Your task to perform on an android device: turn on location history Image 0: 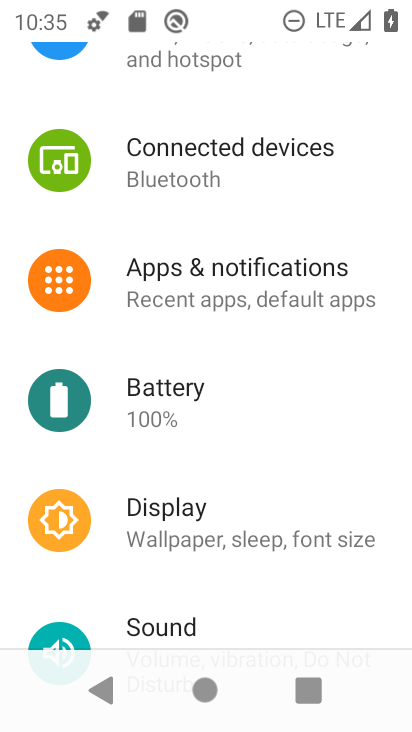
Step 0: press home button
Your task to perform on an android device: turn on location history Image 1: 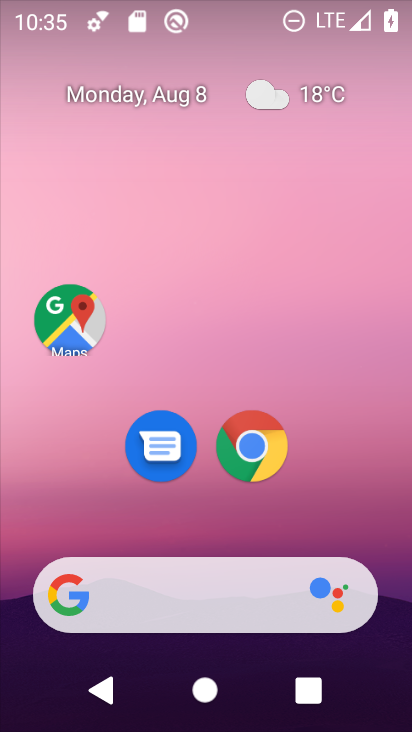
Step 1: click (71, 318)
Your task to perform on an android device: turn on location history Image 2: 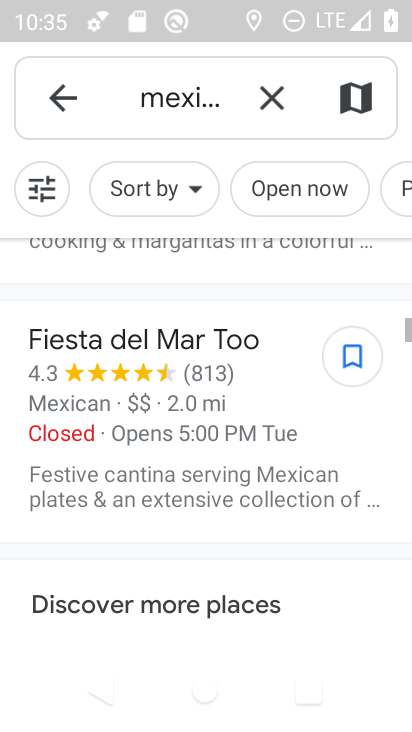
Step 2: click (264, 101)
Your task to perform on an android device: turn on location history Image 3: 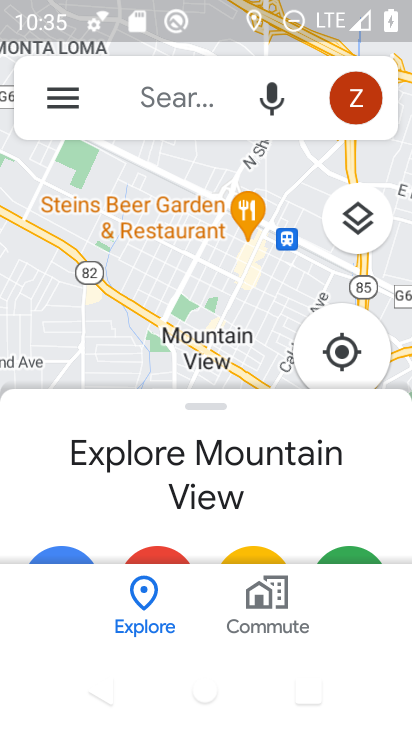
Step 3: click (56, 99)
Your task to perform on an android device: turn on location history Image 4: 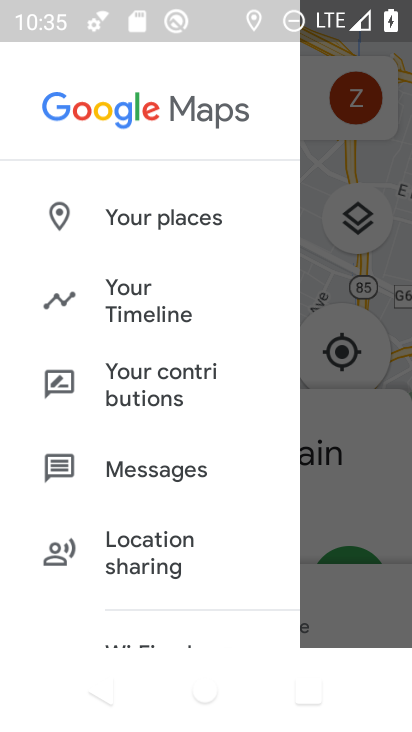
Step 4: drag from (208, 560) to (216, 287)
Your task to perform on an android device: turn on location history Image 5: 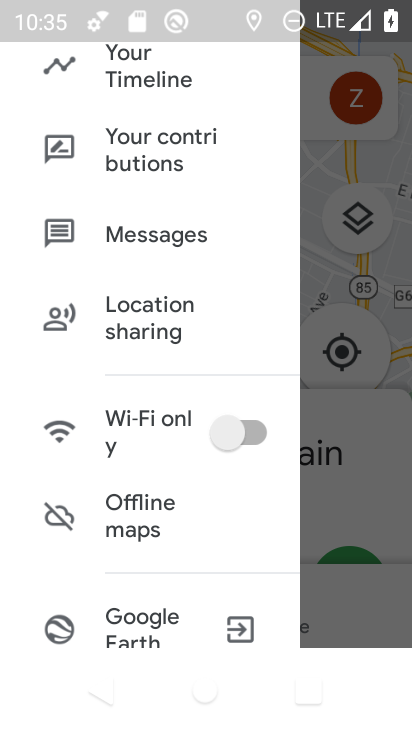
Step 5: drag from (215, 570) to (193, 213)
Your task to perform on an android device: turn on location history Image 6: 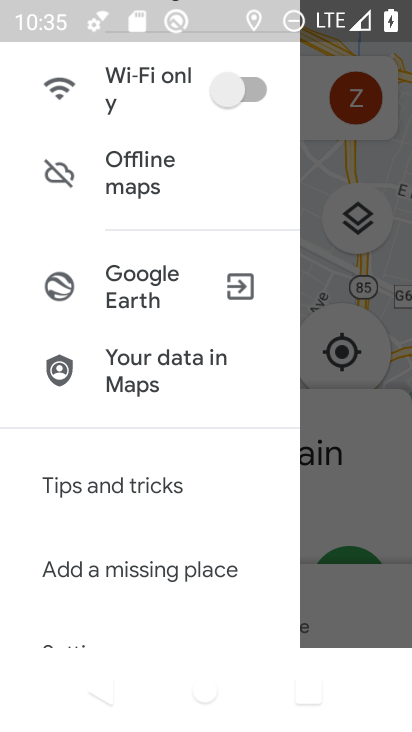
Step 6: drag from (215, 544) to (205, 205)
Your task to perform on an android device: turn on location history Image 7: 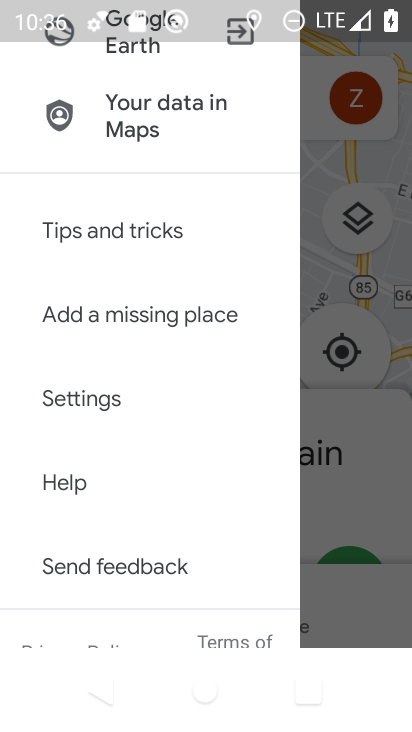
Step 7: click (85, 406)
Your task to perform on an android device: turn on location history Image 8: 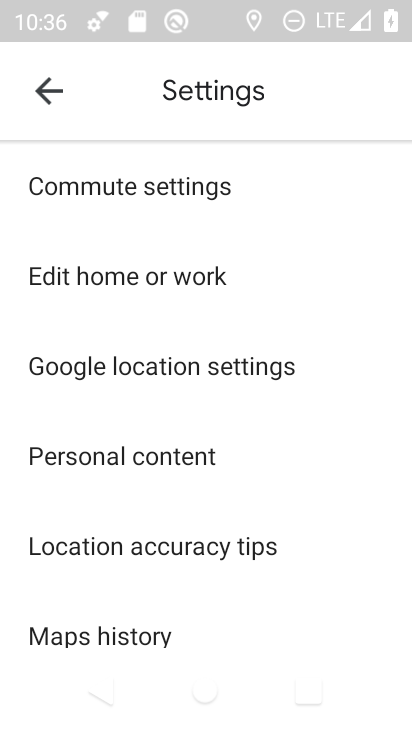
Step 8: click (117, 463)
Your task to perform on an android device: turn on location history Image 9: 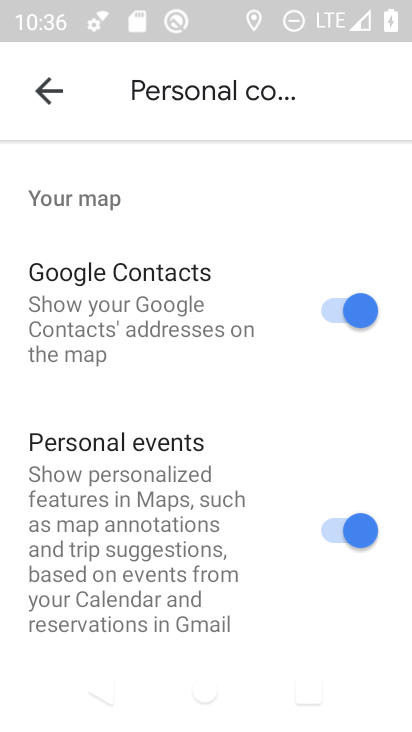
Step 9: drag from (238, 549) to (240, 176)
Your task to perform on an android device: turn on location history Image 10: 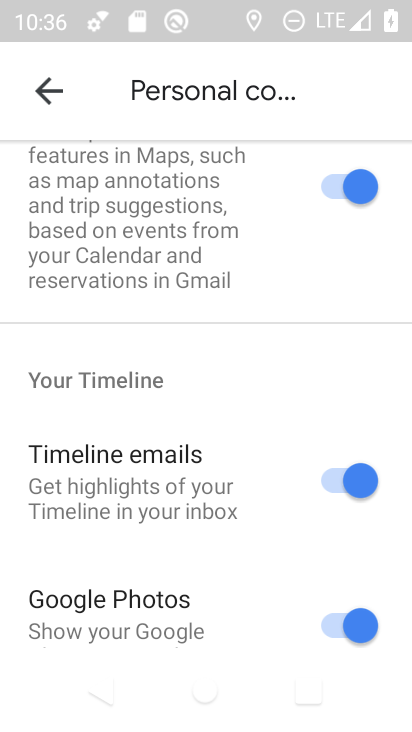
Step 10: drag from (240, 575) to (240, 219)
Your task to perform on an android device: turn on location history Image 11: 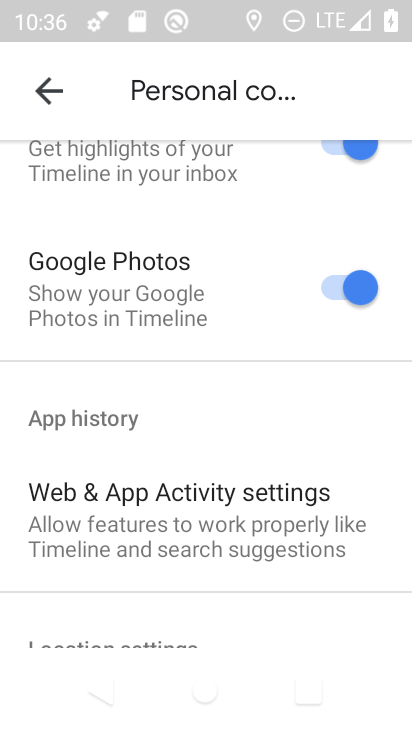
Step 11: drag from (236, 562) to (234, 219)
Your task to perform on an android device: turn on location history Image 12: 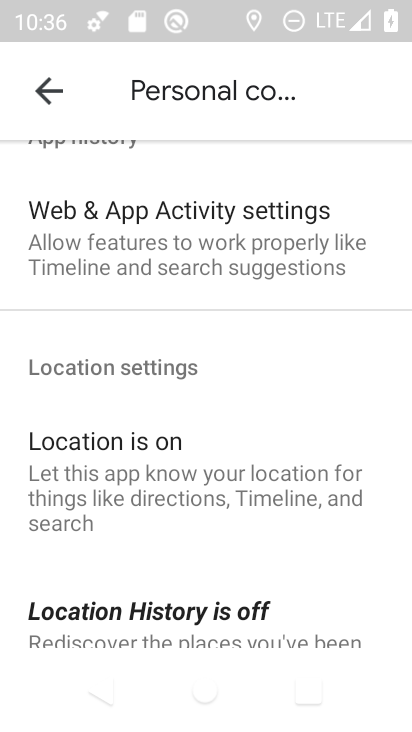
Step 12: drag from (233, 575) to (223, 327)
Your task to perform on an android device: turn on location history Image 13: 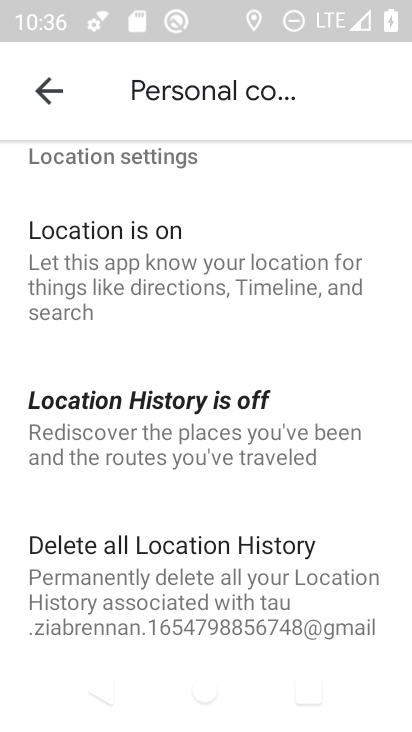
Step 13: click (178, 405)
Your task to perform on an android device: turn on location history Image 14: 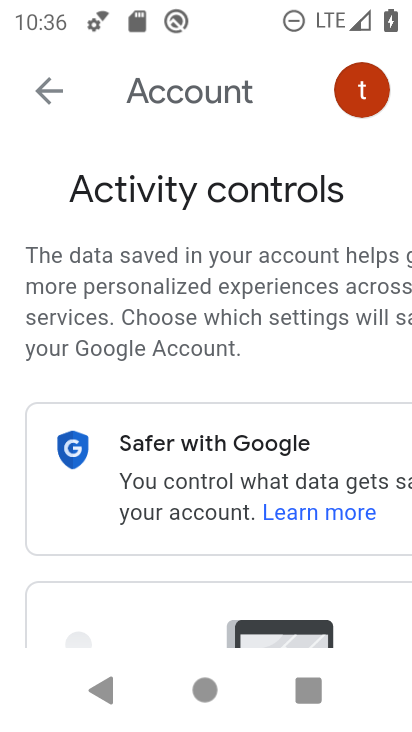
Step 14: task complete